Your task to perform on an android device: What's the weather today? Image 0: 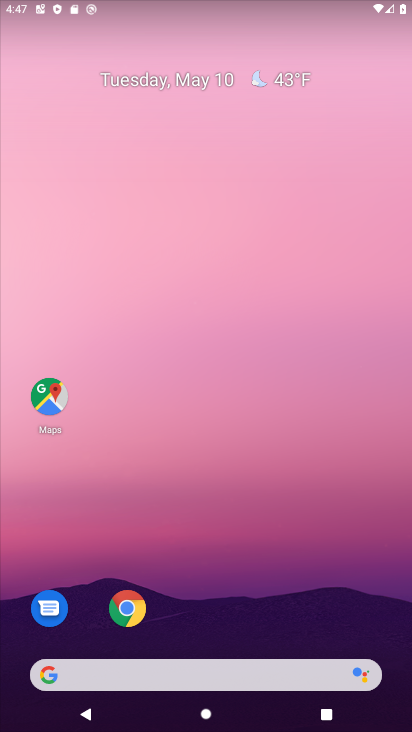
Step 0: click (271, 77)
Your task to perform on an android device: What's the weather today? Image 1: 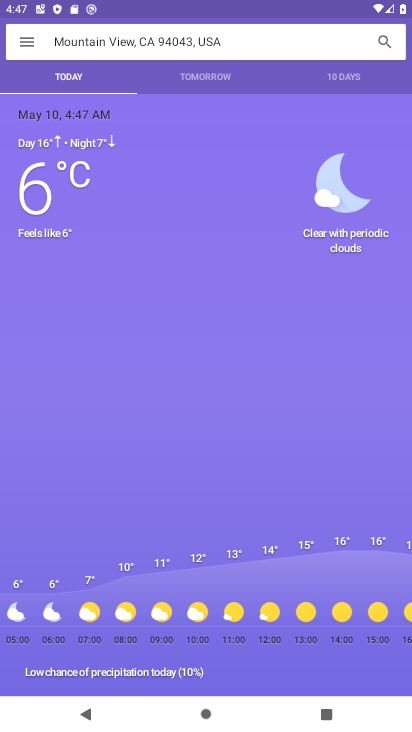
Step 1: task complete